Your task to perform on an android device: Go to Google Image 0: 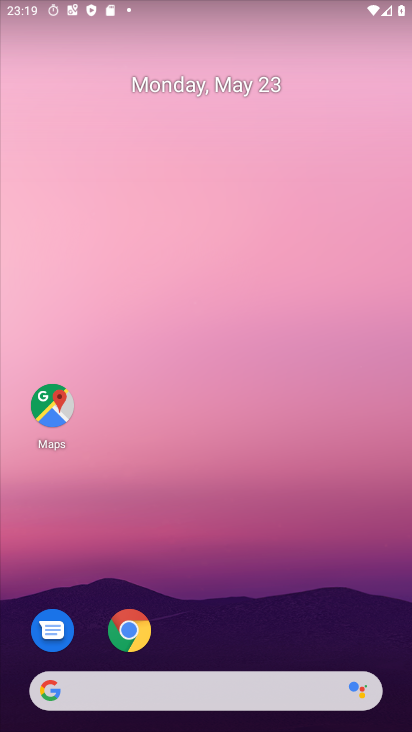
Step 0: drag from (253, 657) to (300, 5)
Your task to perform on an android device: Go to Google Image 1: 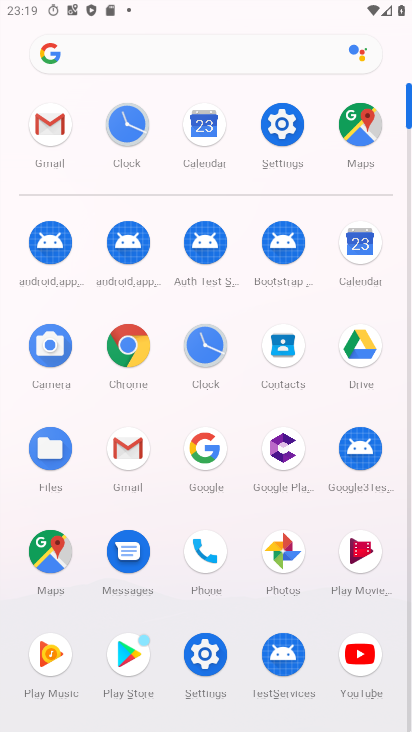
Step 1: click (205, 459)
Your task to perform on an android device: Go to Google Image 2: 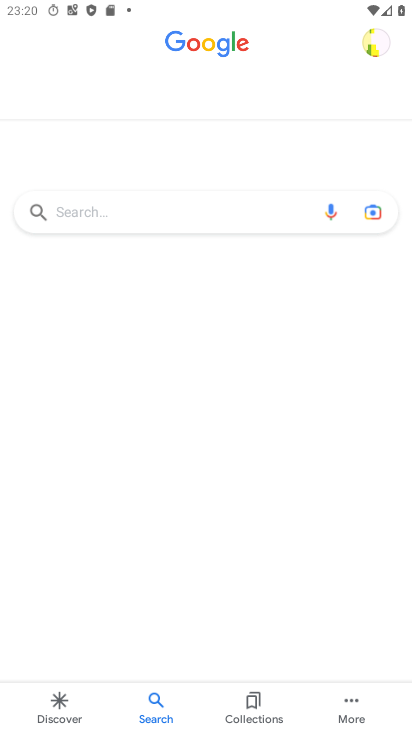
Step 2: task complete